Your task to perform on an android device: allow cookies in the chrome app Image 0: 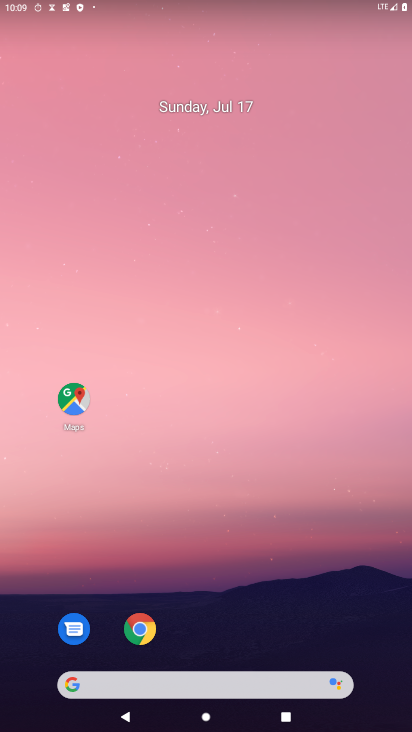
Step 0: drag from (235, 726) to (202, 36)
Your task to perform on an android device: allow cookies in the chrome app Image 1: 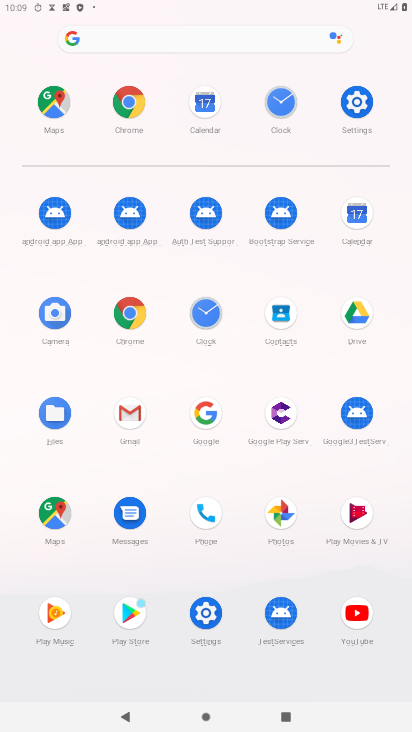
Step 1: click (129, 313)
Your task to perform on an android device: allow cookies in the chrome app Image 2: 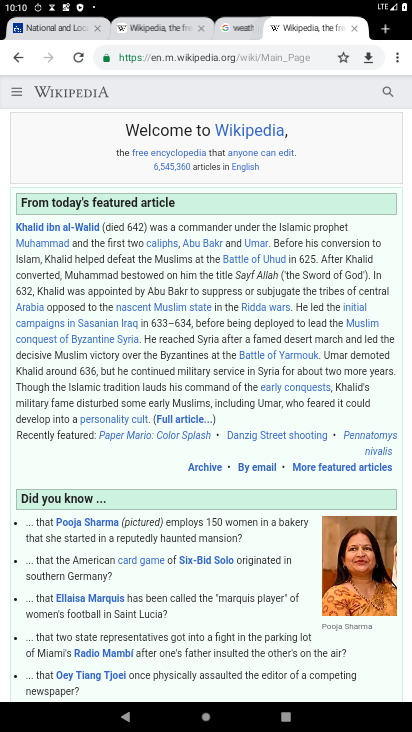
Step 2: click (396, 60)
Your task to perform on an android device: allow cookies in the chrome app Image 3: 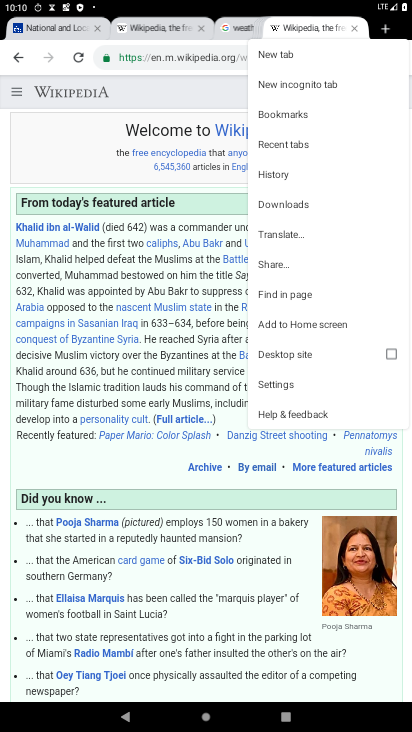
Step 3: click (275, 381)
Your task to perform on an android device: allow cookies in the chrome app Image 4: 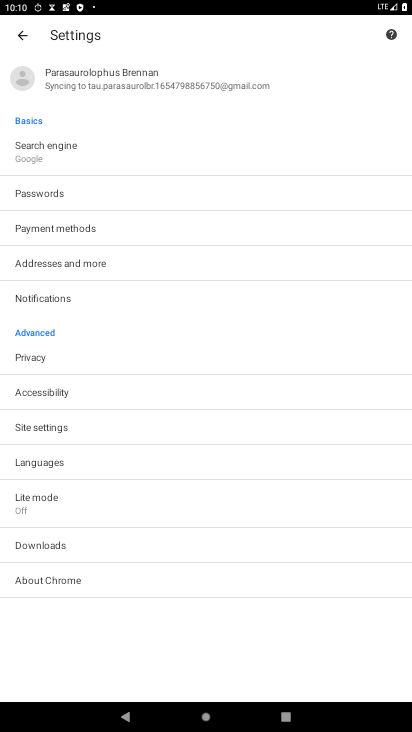
Step 4: click (34, 427)
Your task to perform on an android device: allow cookies in the chrome app Image 5: 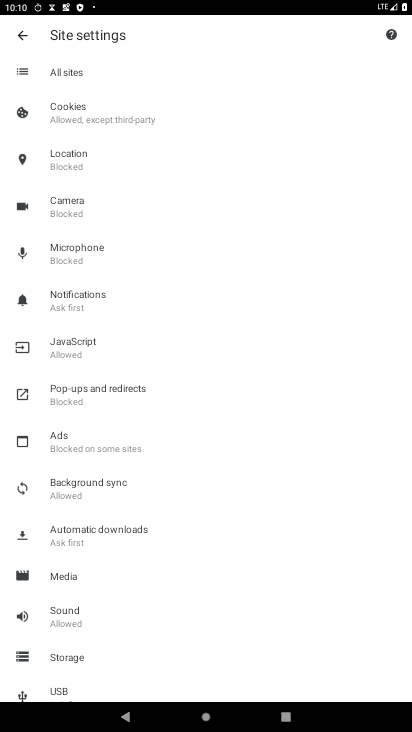
Step 5: click (66, 108)
Your task to perform on an android device: allow cookies in the chrome app Image 6: 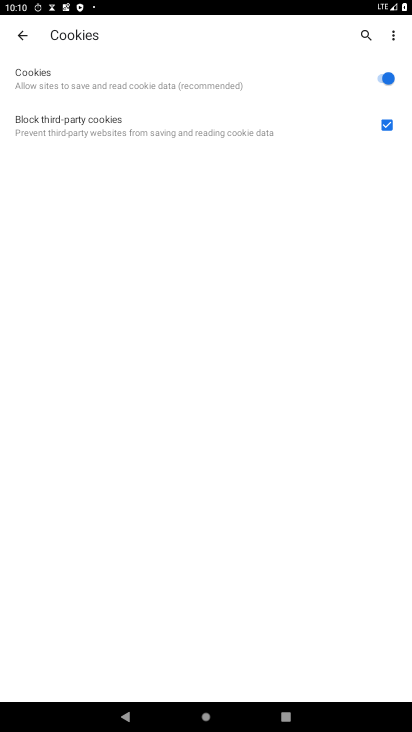
Step 6: task complete